Your task to perform on an android device: open wifi settings Image 0: 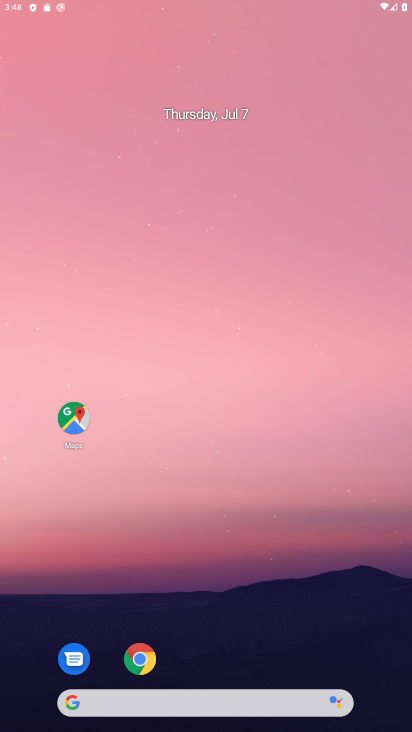
Step 0: drag from (254, 557) to (223, 0)
Your task to perform on an android device: open wifi settings Image 1: 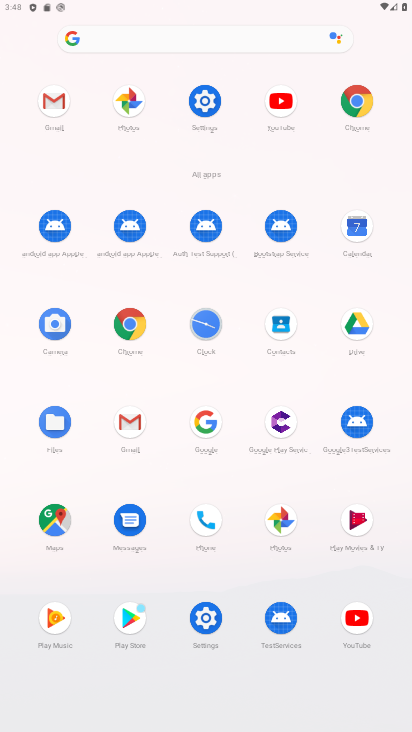
Step 1: click (204, 628)
Your task to perform on an android device: open wifi settings Image 2: 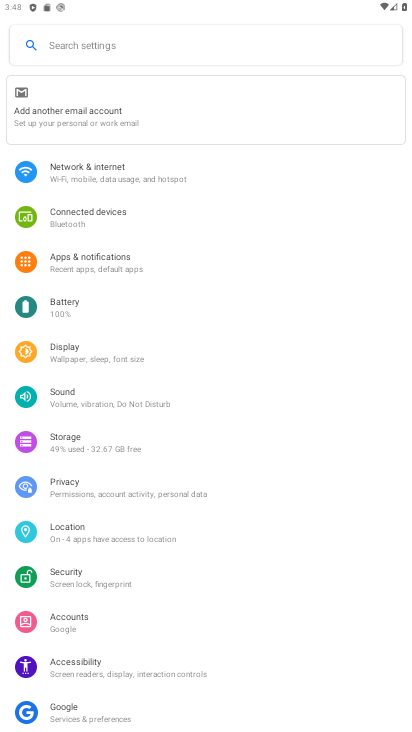
Step 2: click (149, 175)
Your task to perform on an android device: open wifi settings Image 3: 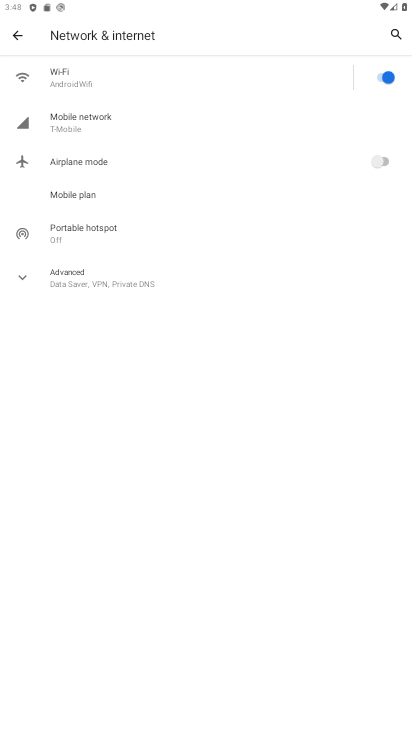
Step 3: click (98, 76)
Your task to perform on an android device: open wifi settings Image 4: 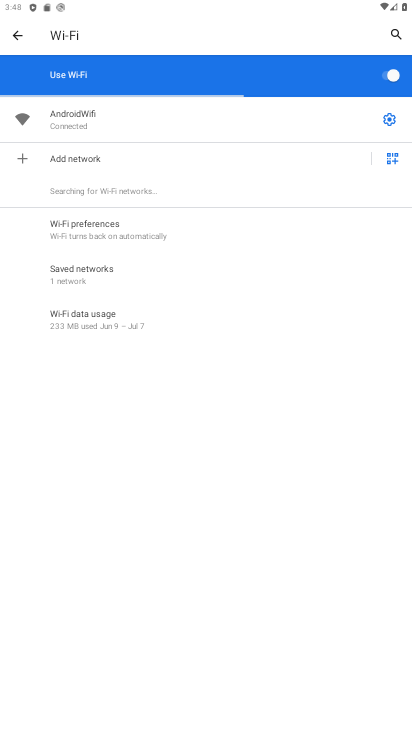
Step 4: task complete